Your task to perform on an android device: change the upload size in google photos Image 0: 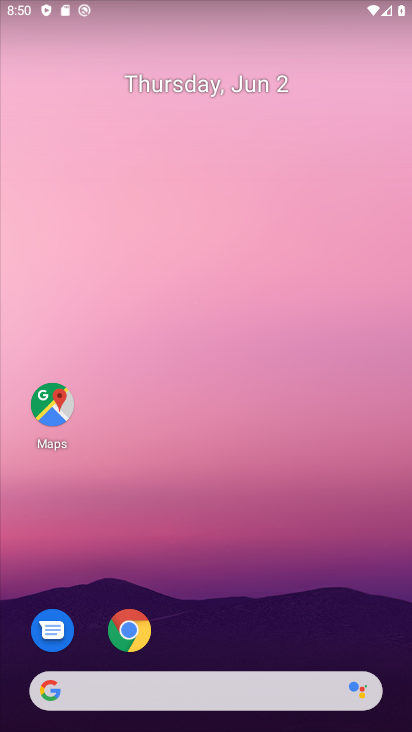
Step 0: drag from (240, 652) to (225, 43)
Your task to perform on an android device: change the upload size in google photos Image 1: 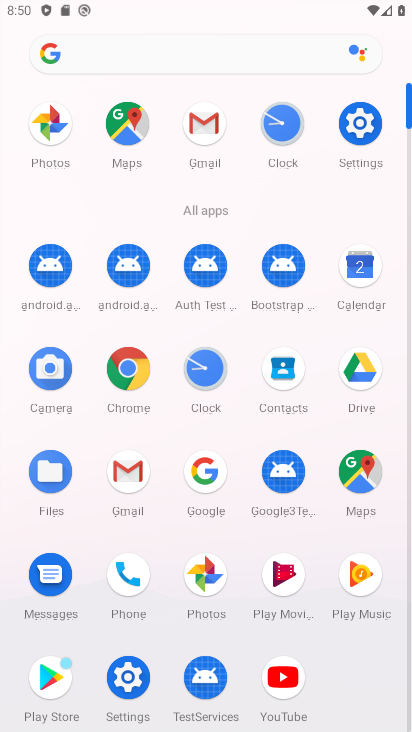
Step 1: click (203, 574)
Your task to perform on an android device: change the upload size in google photos Image 2: 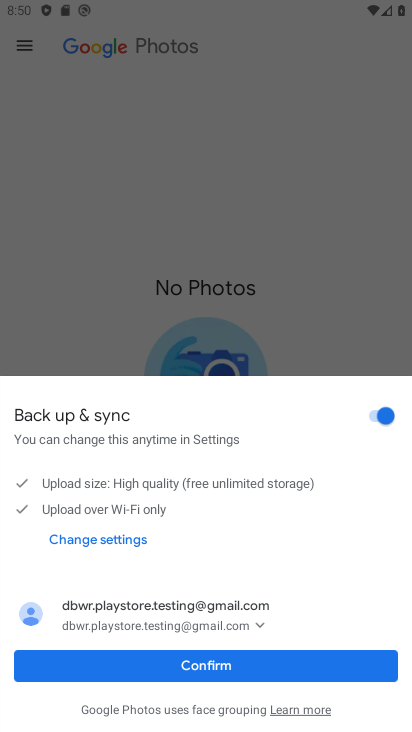
Step 2: click (193, 660)
Your task to perform on an android device: change the upload size in google photos Image 3: 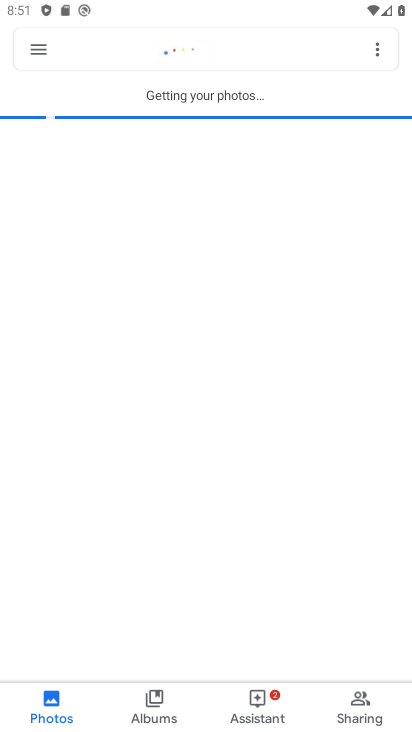
Step 3: click (36, 51)
Your task to perform on an android device: change the upload size in google photos Image 4: 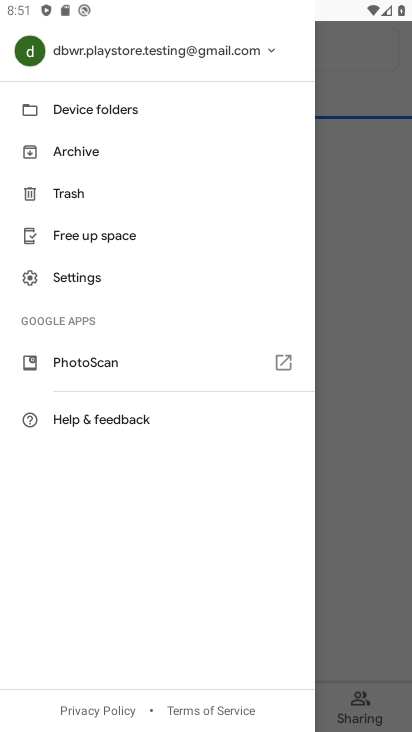
Step 4: click (89, 282)
Your task to perform on an android device: change the upload size in google photos Image 5: 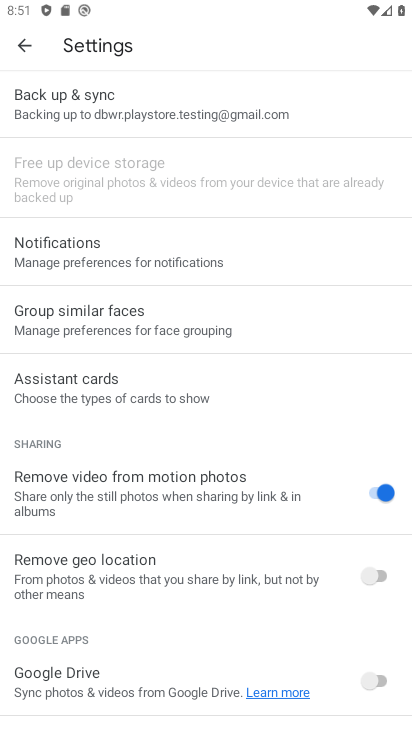
Step 5: click (98, 106)
Your task to perform on an android device: change the upload size in google photos Image 6: 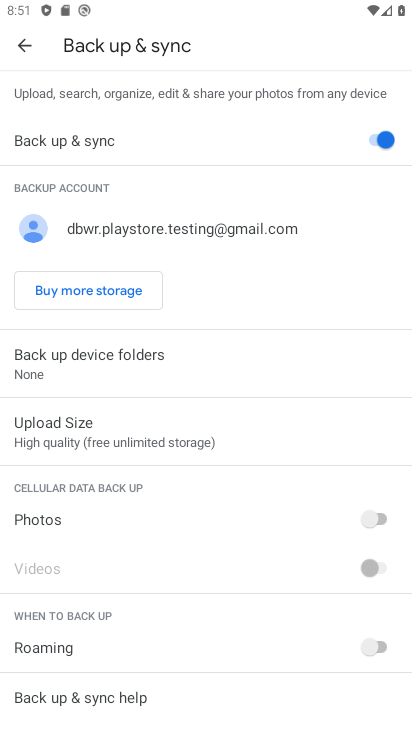
Step 6: click (102, 441)
Your task to perform on an android device: change the upload size in google photos Image 7: 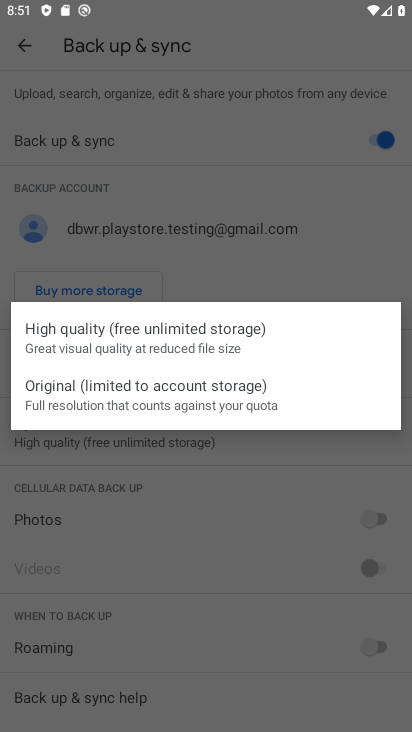
Step 7: click (113, 380)
Your task to perform on an android device: change the upload size in google photos Image 8: 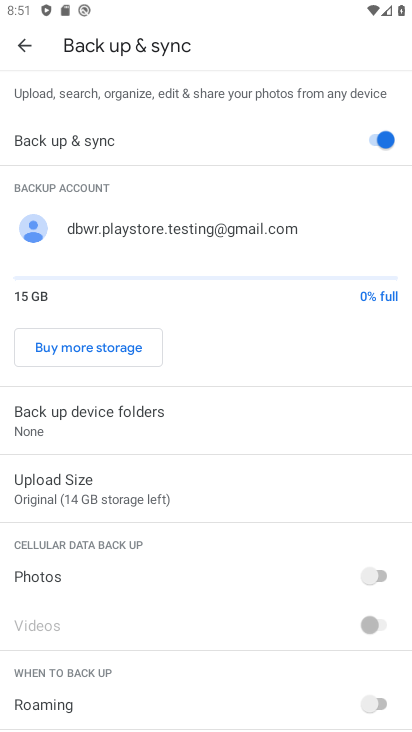
Step 8: task complete